Your task to perform on an android device: change notification settings in the gmail app Image 0: 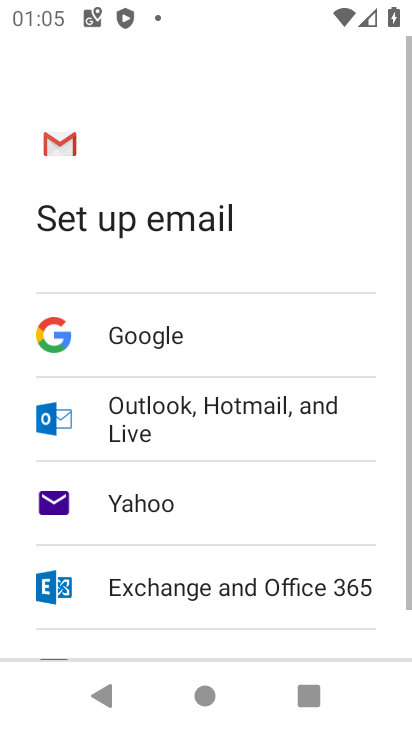
Step 0: press home button
Your task to perform on an android device: change notification settings in the gmail app Image 1: 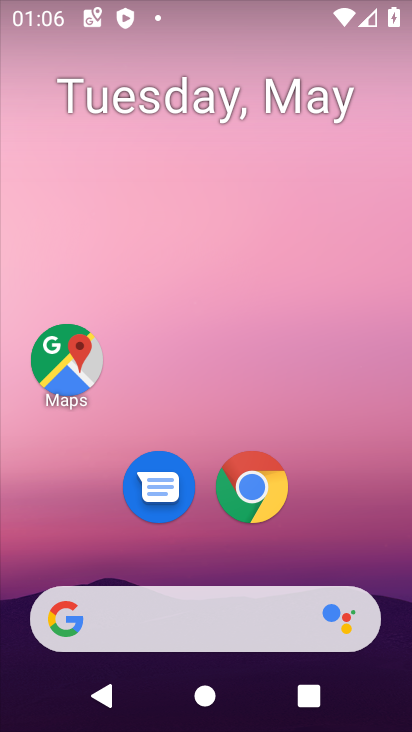
Step 1: drag from (293, 554) to (302, 172)
Your task to perform on an android device: change notification settings in the gmail app Image 2: 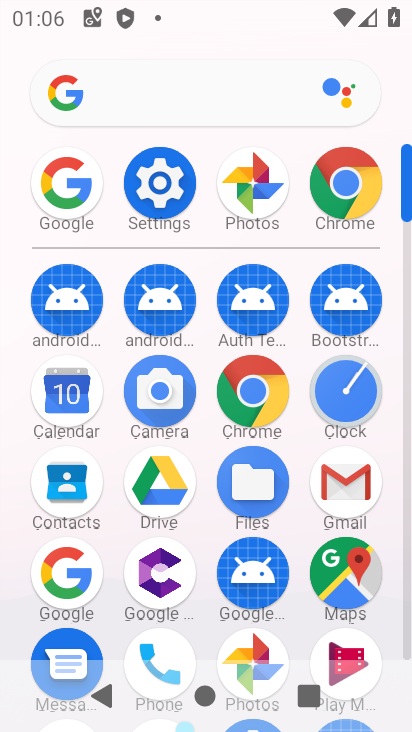
Step 2: click (332, 485)
Your task to perform on an android device: change notification settings in the gmail app Image 3: 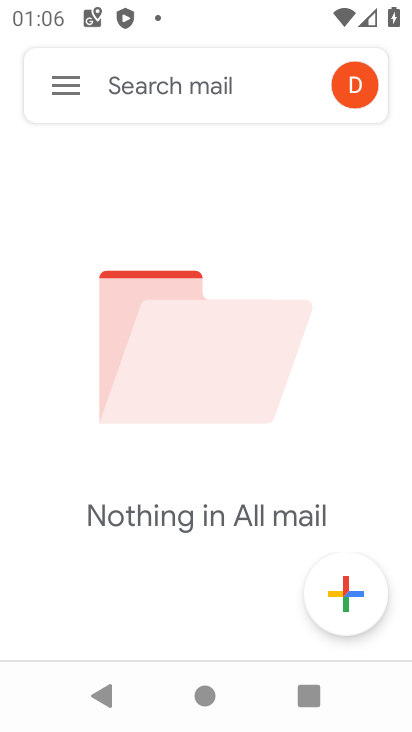
Step 3: click (63, 90)
Your task to perform on an android device: change notification settings in the gmail app Image 4: 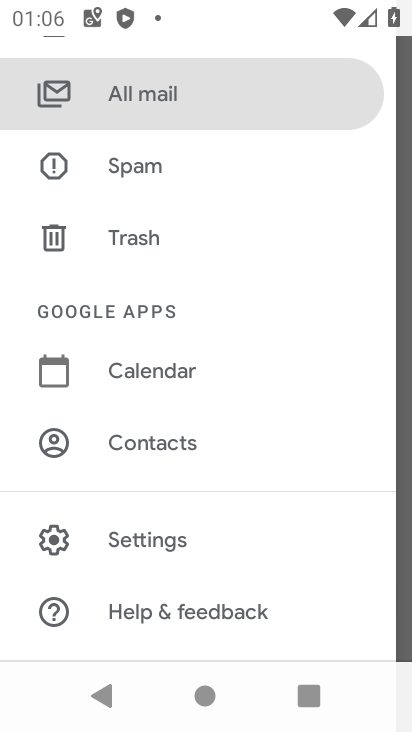
Step 4: click (158, 544)
Your task to perform on an android device: change notification settings in the gmail app Image 5: 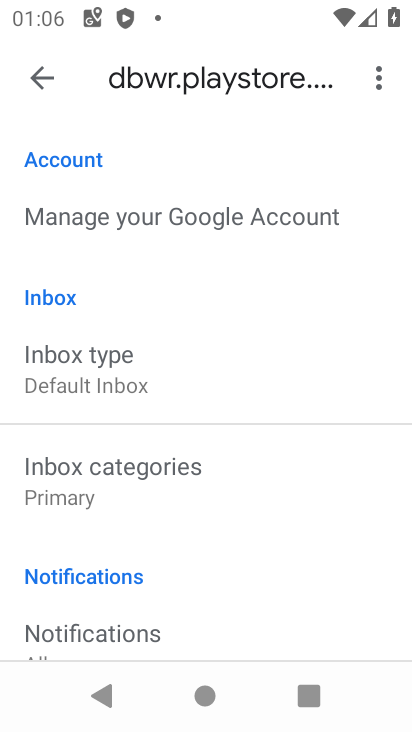
Step 5: click (173, 631)
Your task to perform on an android device: change notification settings in the gmail app Image 6: 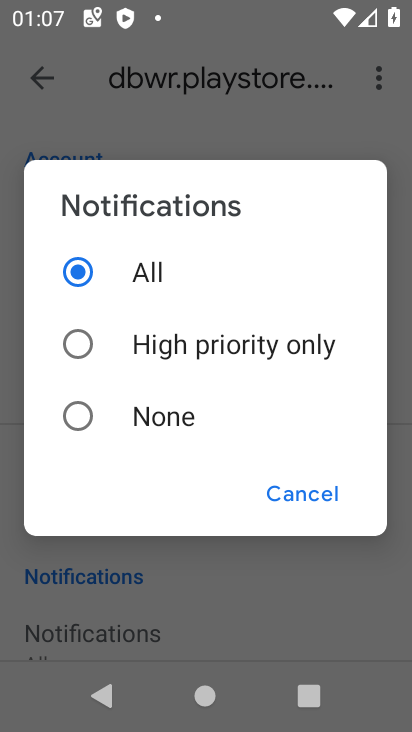
Step 6: click (75, 350)
Your task to perform on an android device: change notification settings in the gmail app Image 7: 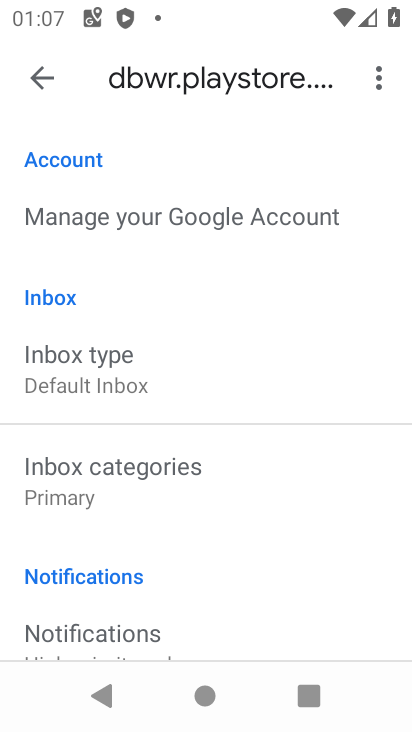
Step 7: task complete